Your task to perform on an android device: check google app version Image 0: 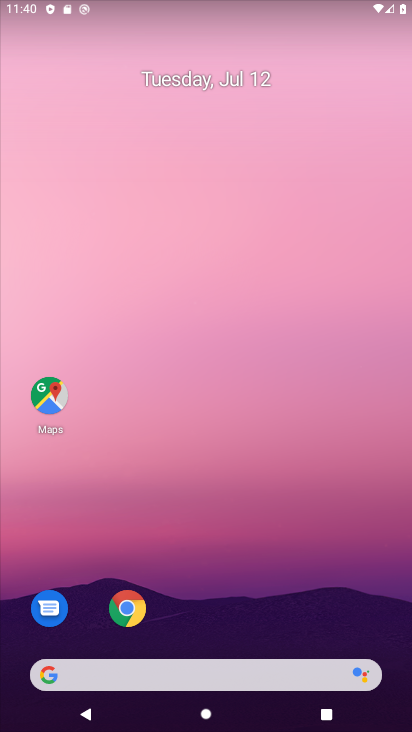
Step 0: drag from (221, 626) to (288, 73)
Your task to perform on an android device: check google app version Image 1: 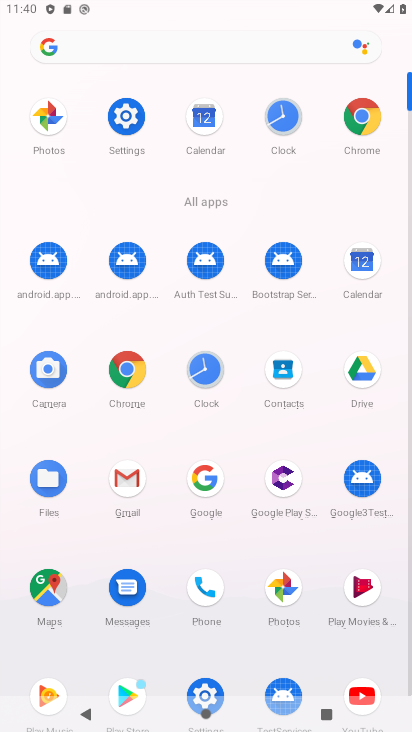
Step 1: click (209, 477)
Your task to perform on an android device: check google app version Image 2: 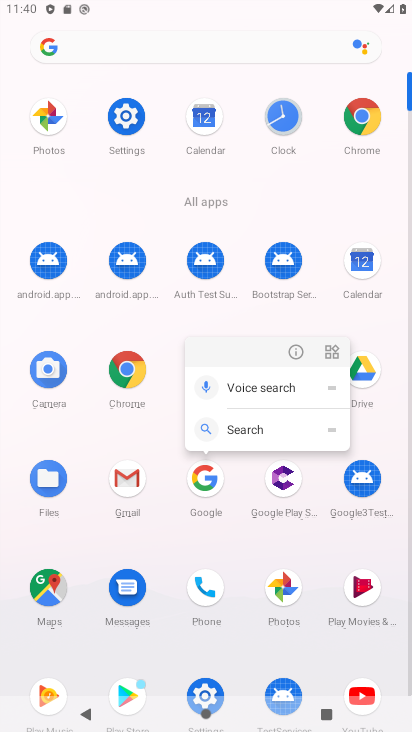
Step 2: click (295, 348)
Your task to perform on an android device: check google app version Image 3: 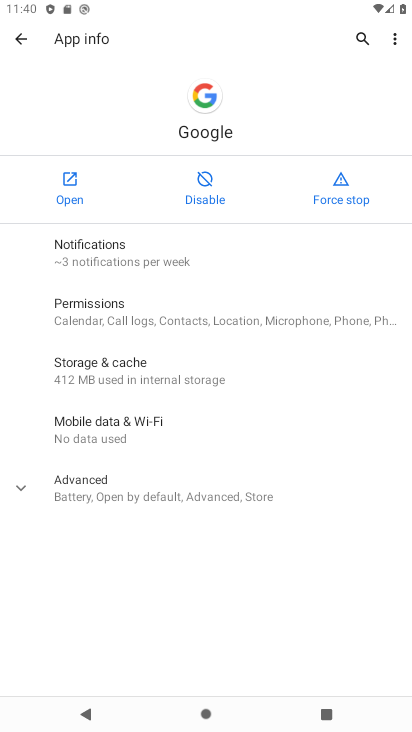
Step 3: click (143, 502)
Your task to perform on an android device: check google app version Image 4: 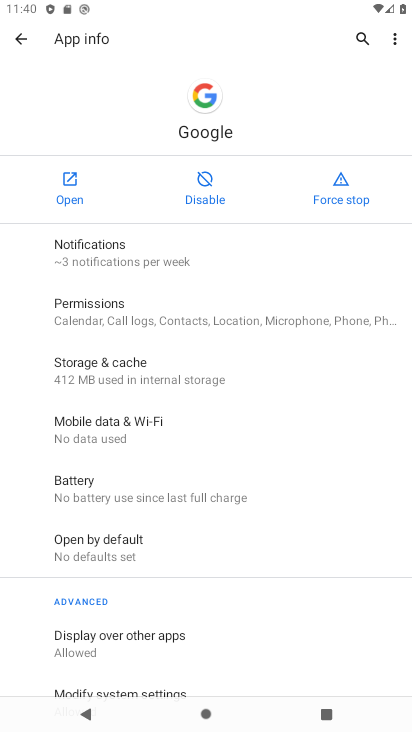
Step 4: task complete